Your task to perform on an android device: Open calendar and show me the second week of next month Image 0: 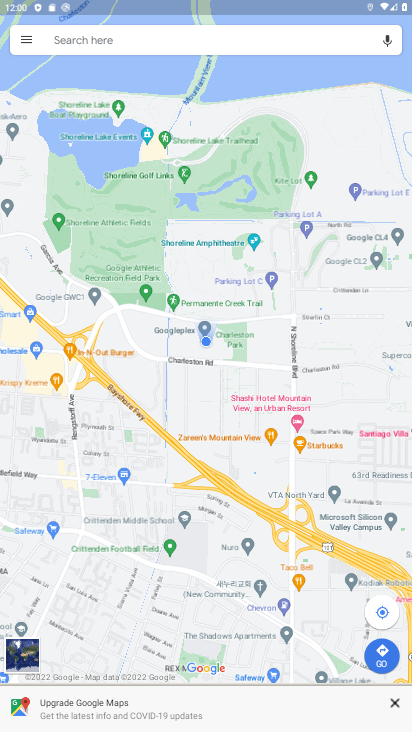
Step 0: press home button
Your task to perform on an android device: Open calendar and show me the second week of next month Image 1: 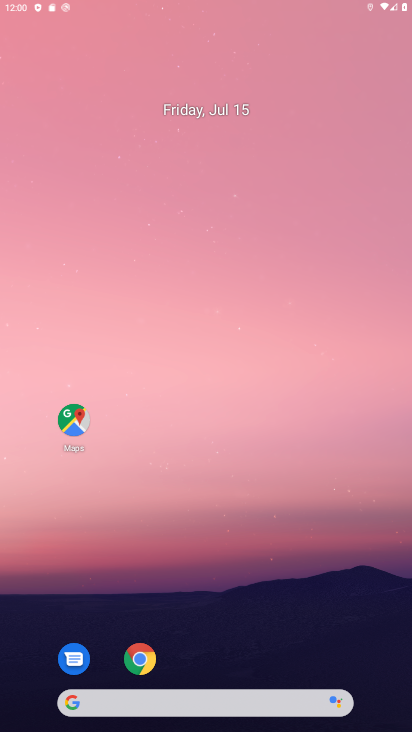
Step 1: press home button
Your task to perform on an android device: Open calendar and show me the second week of next month Image 2: 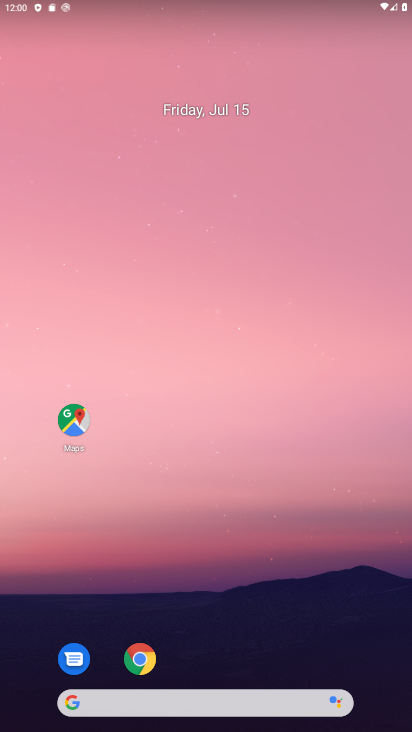
Step 2: drag from (192, 646) to (149, 183)
Your task to perform on an android device: Open calendar and show me the second week of next month Image 3: 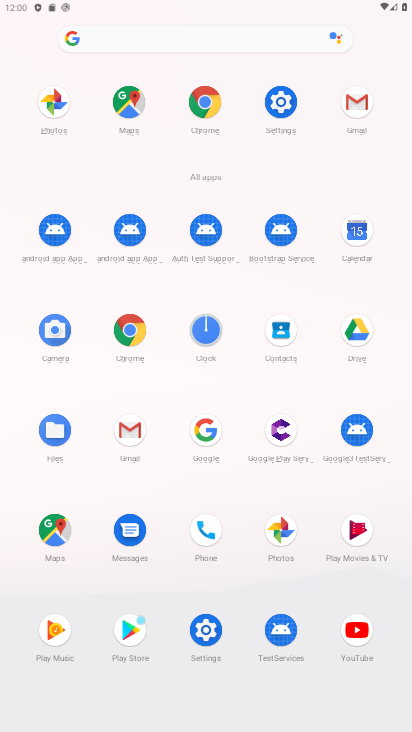
Step 3: click (364, 226)
Your task to perform on an android device: Open calendar and show me the second week of next month Image 4: 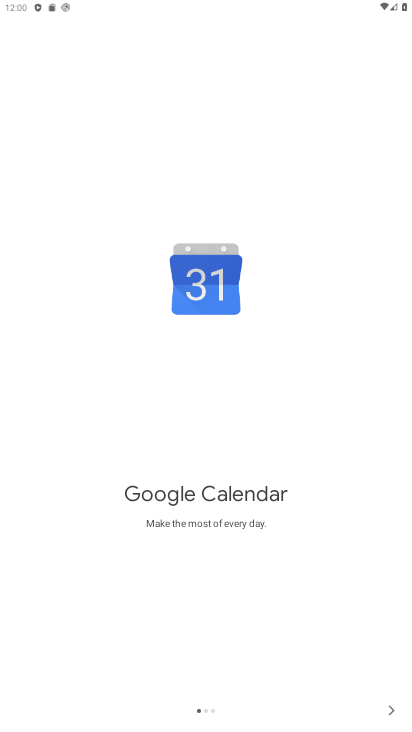
Step 4: click (383, 712)
Your task to perform on an android device: Open calendar and show me the second week of next month Image 5: 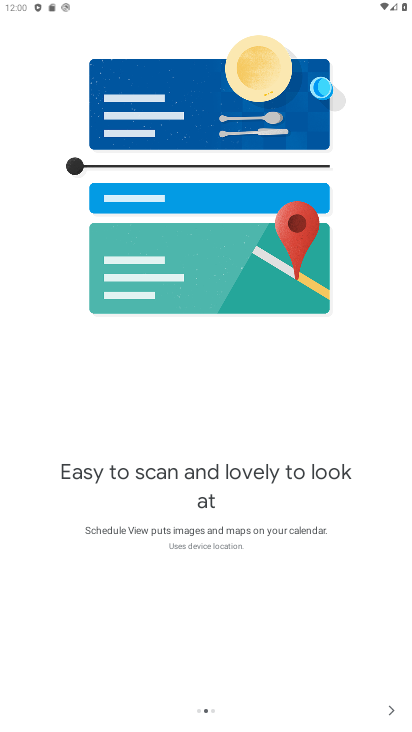
Step 5: click (383, 712)
Your task to perform on an android device: Open calendar and show me the second week of next month Image 6: 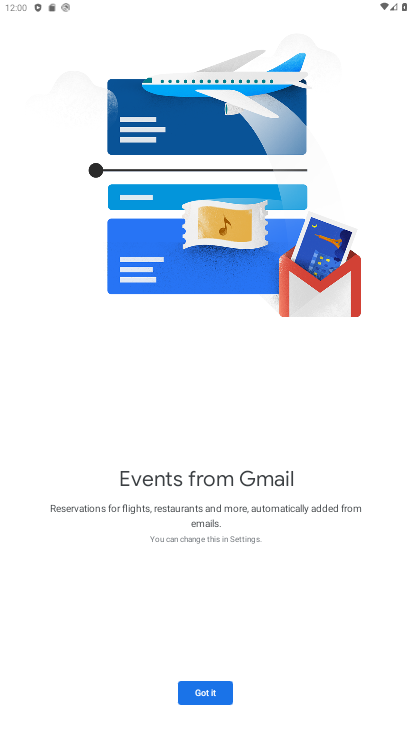
Step 6: click (383, 712)
Your task to perform on an android device: Open calendar and show me the second week of next month Image 7: 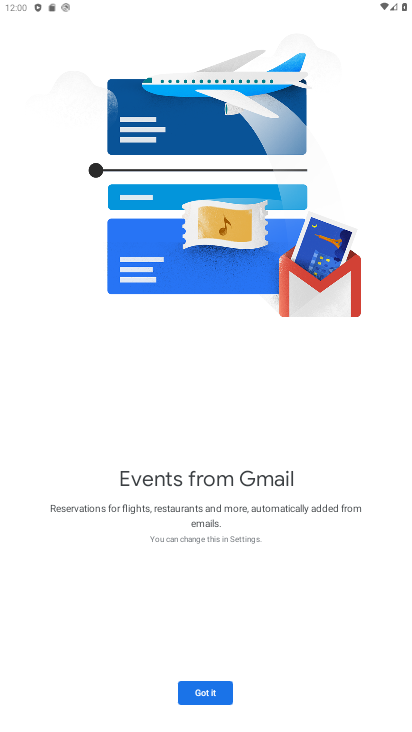
Step 7: click (218, 689)
Your task to perform on an android device: Open calendar and show me the second week of next month Image 8: 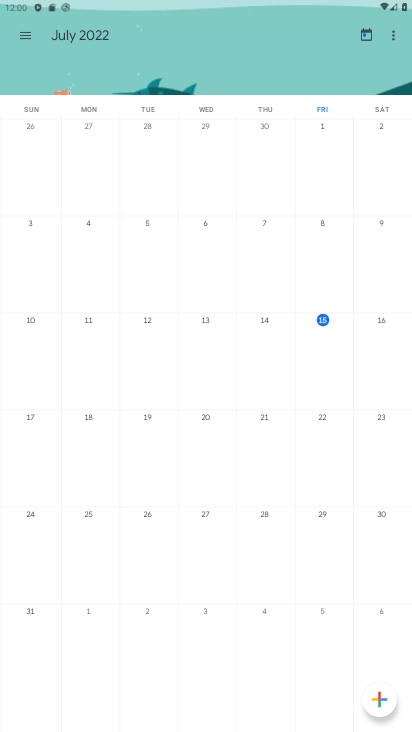
Step 8: drag from (350, 368) to (2, 316)
Your task to perform on an android device: Open calendar and show me the second week of next month Image 9: 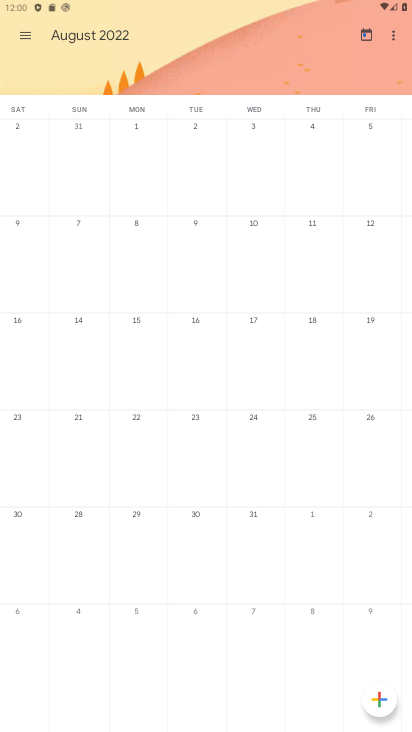
Step 9: click (62, 252)
Your task to perform on an android device: Open calendar and show me the second week of next month Image 10: 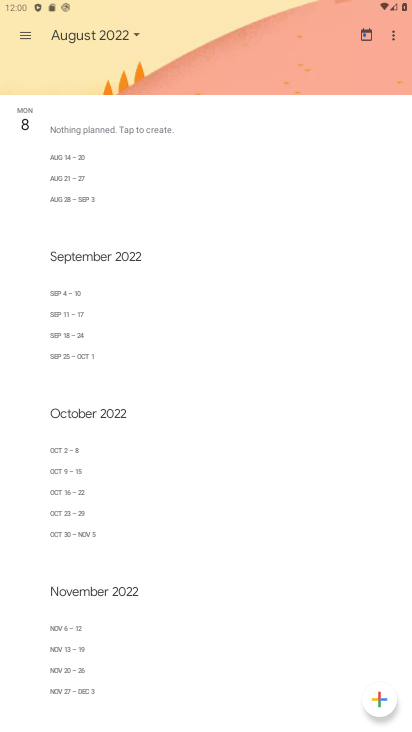
Step 10: task complete